Your task to perform on an android device: toggle improve location accuracy Image 0: 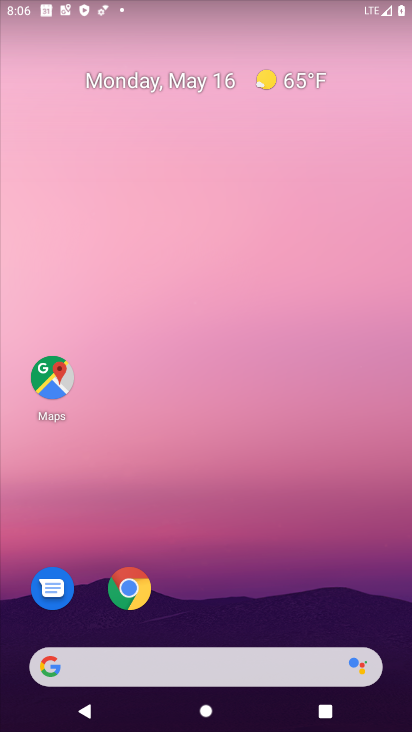
Step 0: drag from (234, 544) to (179, 49)
Your task to perform on an android device: toggle improve location accuracy Image 1: 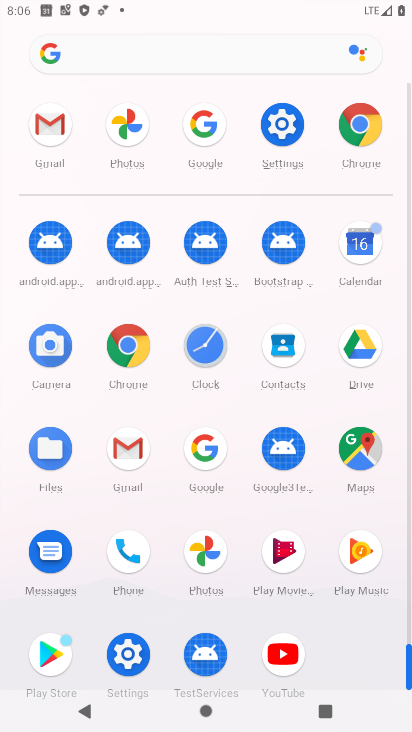
Step 1: drag from (13, 539) to (4, 305)
Your task to perform on an android device: toggle improve location accuracy Image 2: 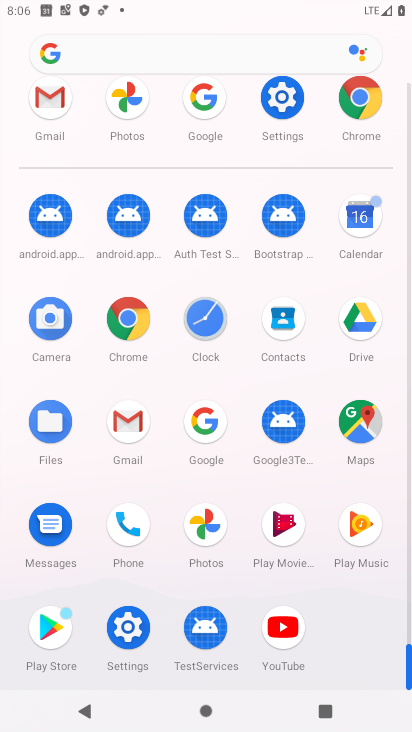
Step 2: click (127, 623)
Your task to perform on an android device: toggle improve location accuracy Image 3: 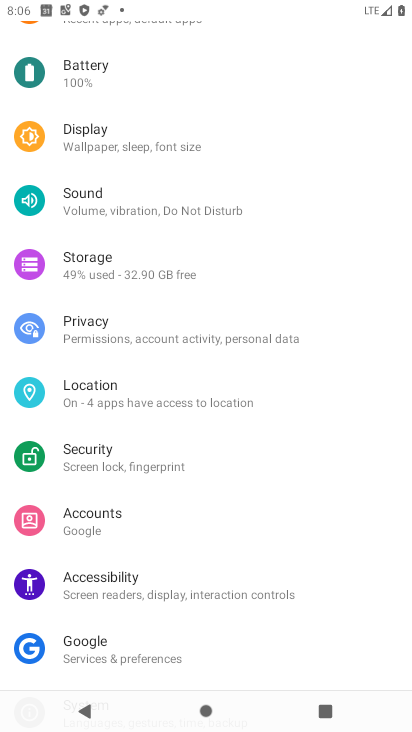
Step 3: drag from (264, 141) to (295, 594)
Your task to perform on an android device: toggle improve location accuracy Image 4: 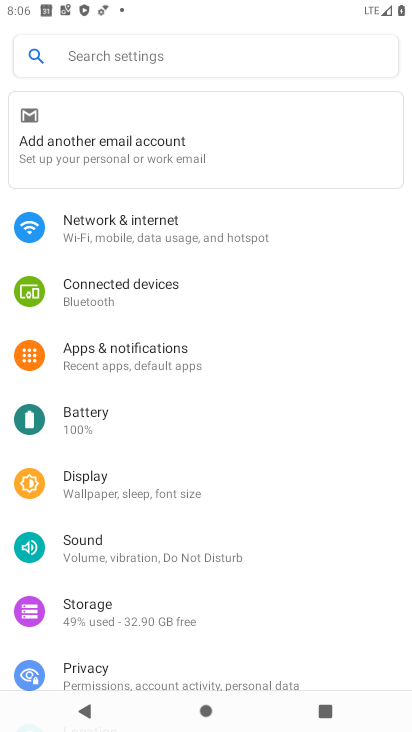
Step 4: drag from (264, 573) to (296, 189)
Your task to perform on an android device: toggle improve location accuracy Image 5: 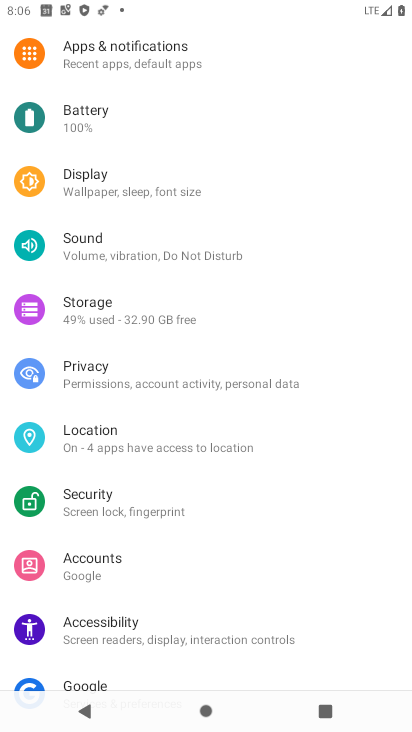
Step 5: click (138, 433)
Your task to perform on an android device: toggle improve location accuracy Image 6: 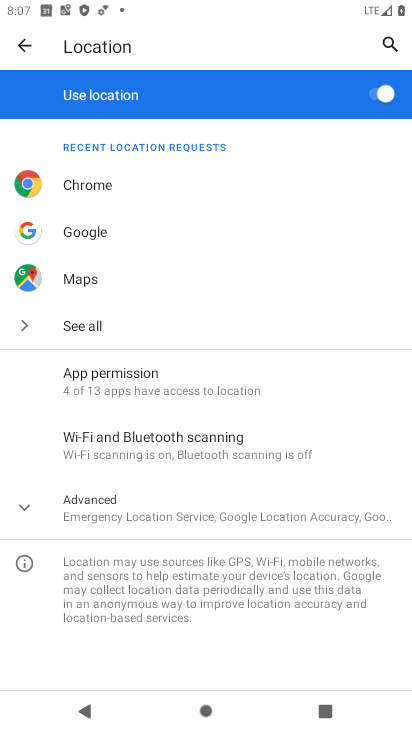
Step 6: click (43, 503)
Your task to perform on an android device: toggle improve location accuracy Image 7: 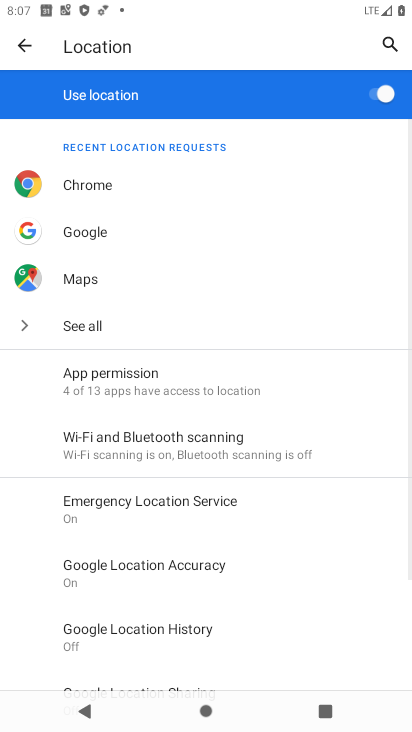
Step 7: drag from (291, 595) to (297, 273)
Your task to perform on an android device: toggle improve location accuracy Image 8: 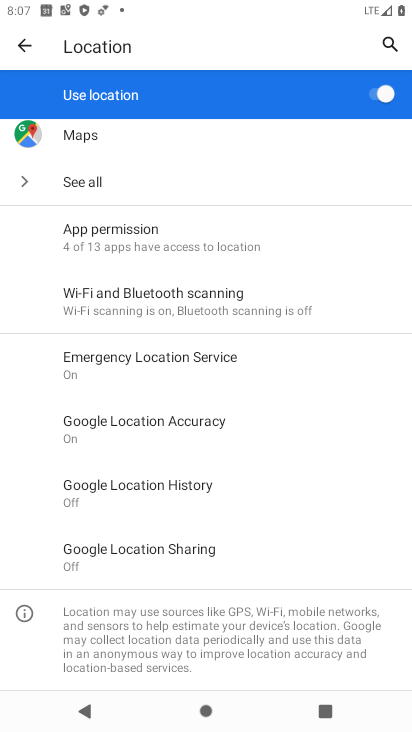
Step 8: click (180, 430)
Your task to perform on an android device: toggle improve location accuracy Image 9: 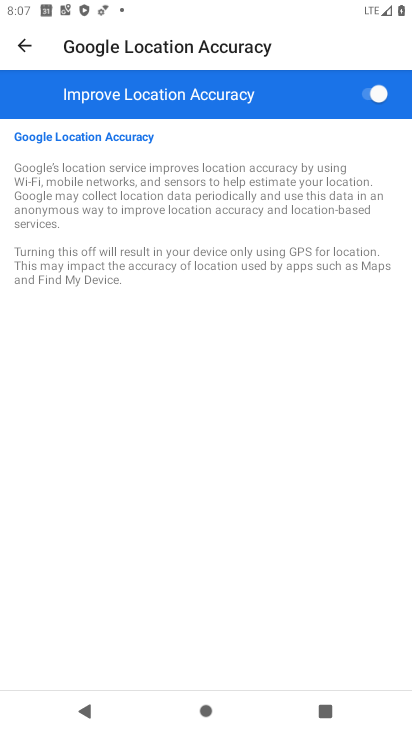
Step 9: click (365, 102)
Your task to perform on an android device: toggle improve location accuracy Image 10: 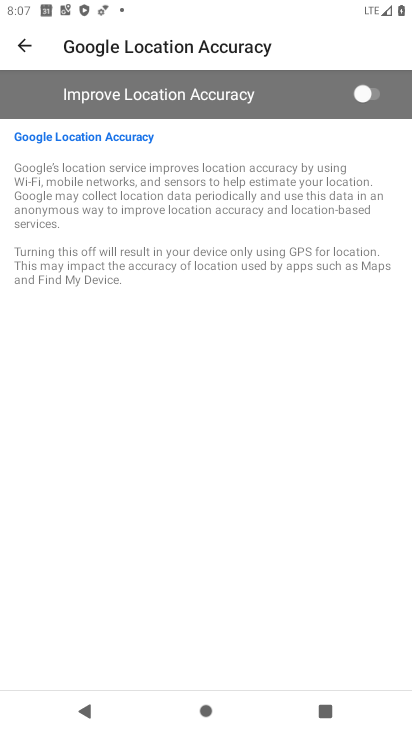
Step 10: task complete